Your task to perform on an android device: Search for seafood restaurants on Google Maps Image 0: 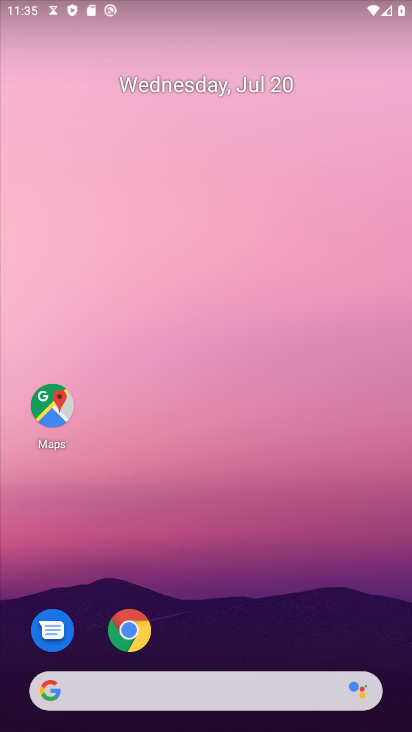
Step 0: click (53, 422)
Your task to perform on an android device: Search for seafood restaurants on Google Maps Image 1: 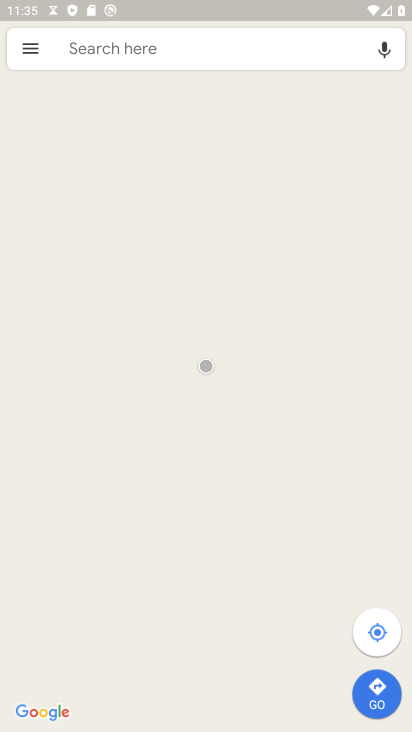
Step 1: click (93, 44)
Your task to perform on an android device: Search for seafood restaurants on Google Maps Image 2: 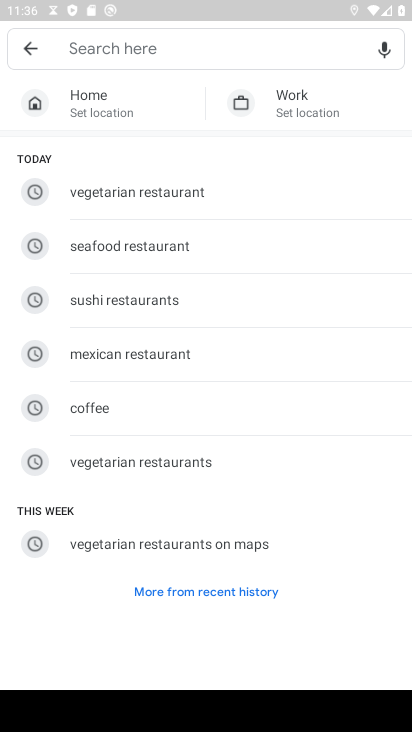
Step 2: click (133, 238)
Your task to perform on an android device: Search for seafood restaurants on Google Maps Image 3: 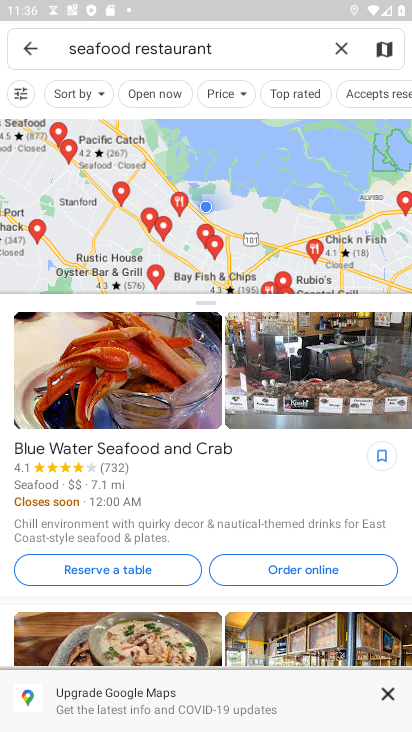
Step 3: task complete